Your task to perform on an android device: Go to Reddit.com Image 0: 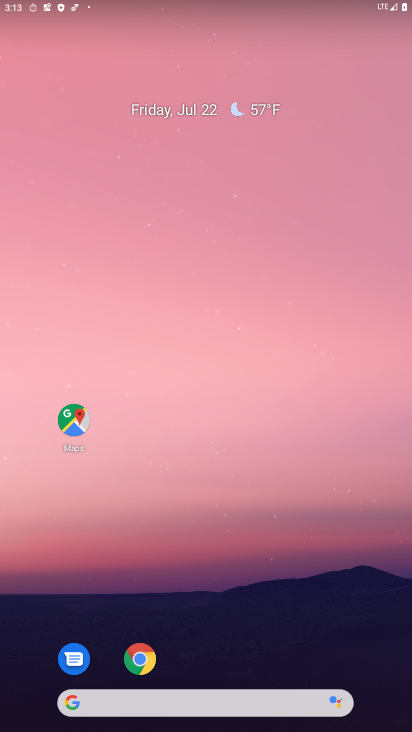
Step 0: click (139, 665)
Your task to perform on an android device: Go to Reddit.com Image 1: 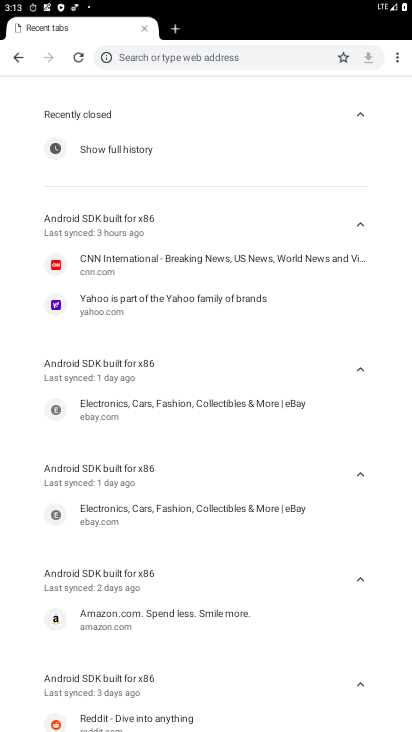
Step 1: click (198, 54)
Your task to perform on an android device: Go to Reddit.com Image 2: 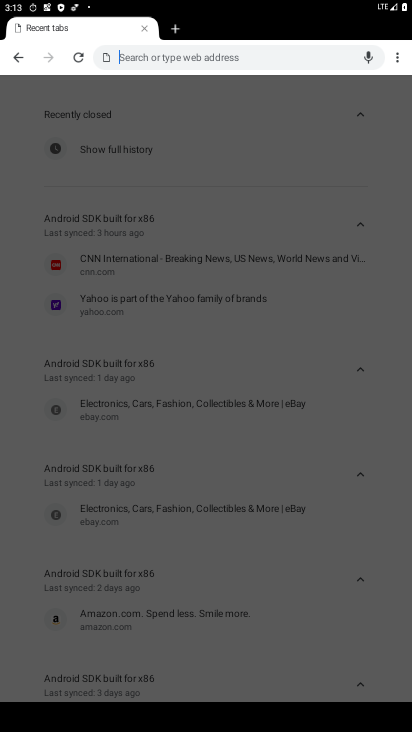
Step 2: type "reddit.com"
Your task to perform on an android device: Go to Reddit.com Image 3: 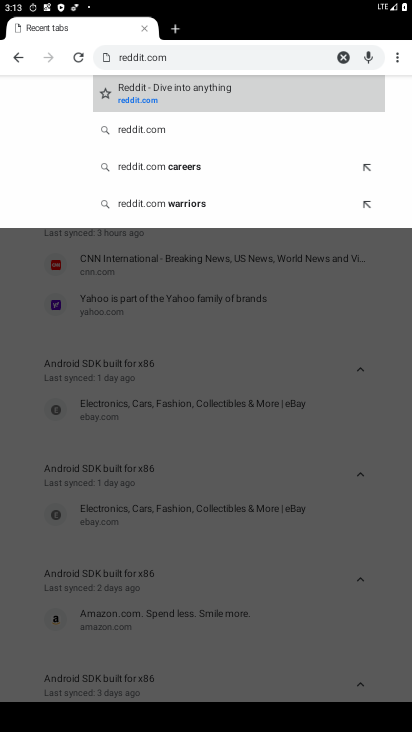
Step 3: click (216, 96)
Your task to perform on an android device: Go to Reddit.com Image 4: 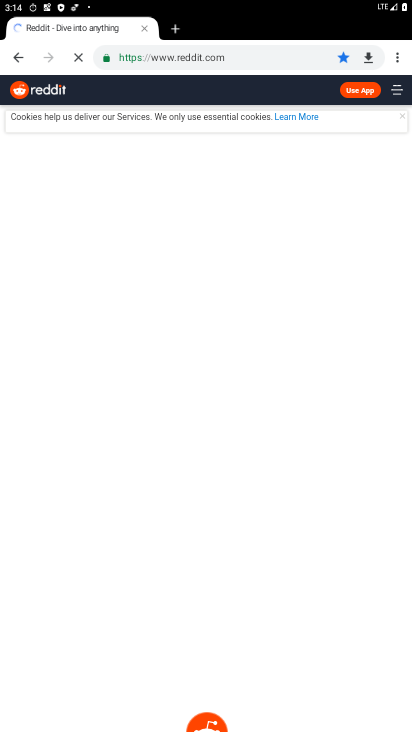
Step 4: task complete